Your task to perform on an android device: toggle notifications settings in the gmail app Image 0: 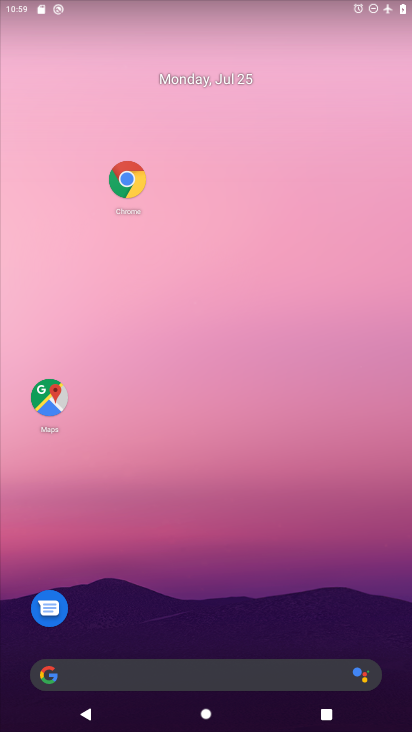
Step 0: drag from (165, 477) to (331, 14)
Your task to perform on an android device: toggle notifications settings in the gmail app Image 1: 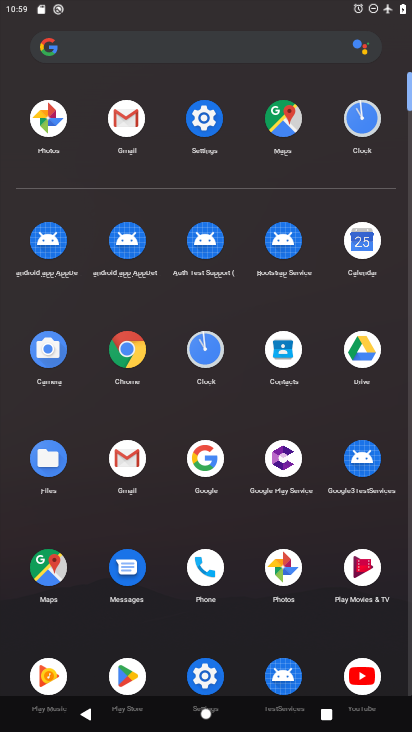
Step 1: click (123, 102)
Your task to perform on an android device: toggle notifications settings in the gmail app Image 2: 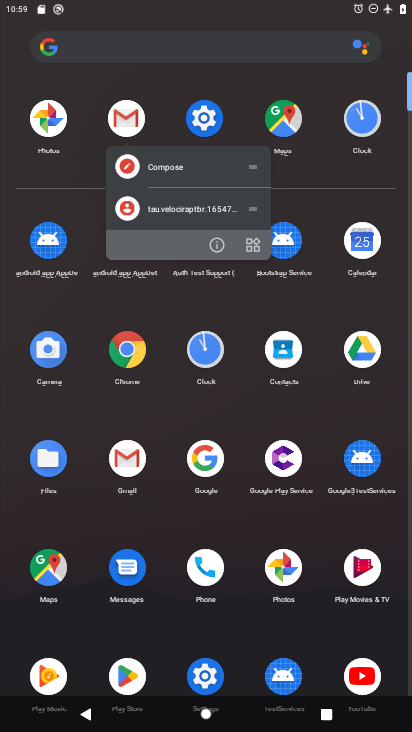
Step 2: click (212, 240)
Your task to perform on an android device: toggle notifications settings in the gmail app Image 3: 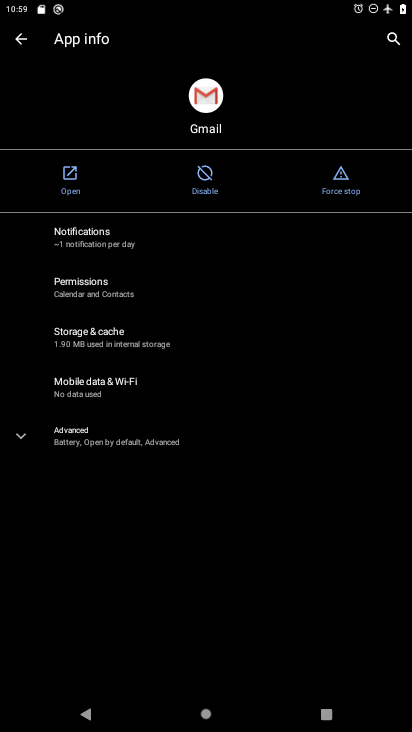
Step 3: click (242, 234)
Your task to perform on an android device: toggle notifications settings in the gmail app Image 4: 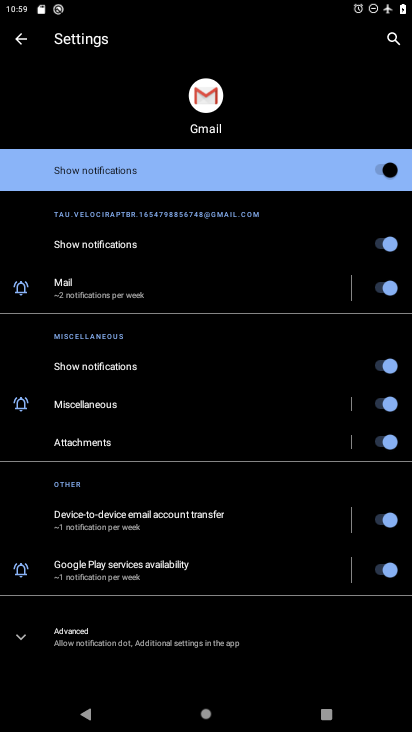
Step 4: click (393, 171)
Your task to perform on an android device: toggle notifications settings in the gmail app Image 5: 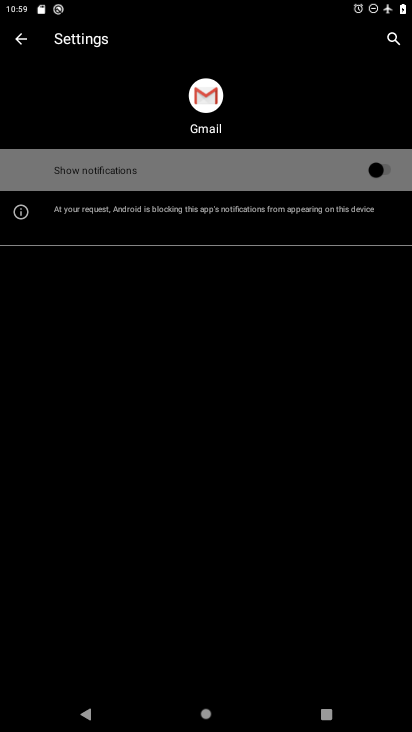
Step 5: task complete